Your task to perform on an android device: delete browsing data in the chrome app Image 0: 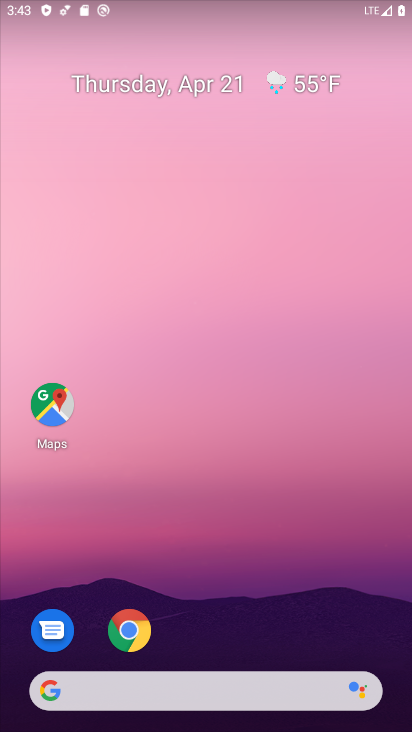
Step 0: click (128, 625)
Your task to perform on an android device: delete browsing data in the chrome app Image 1: 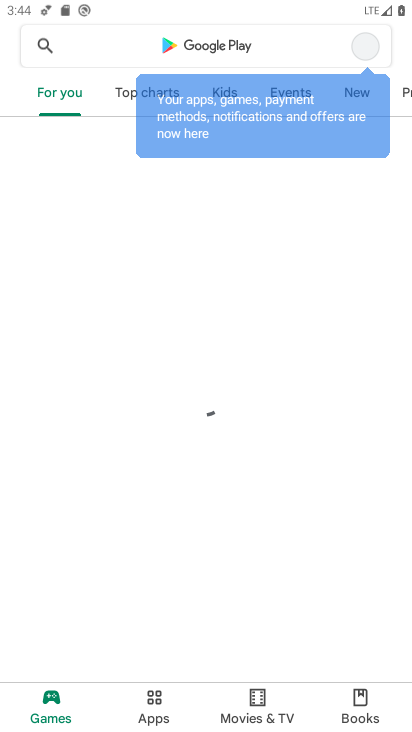
Step 1: press back button
Your task to perform on an android device: delete browsing data in the chrome app Image 2: 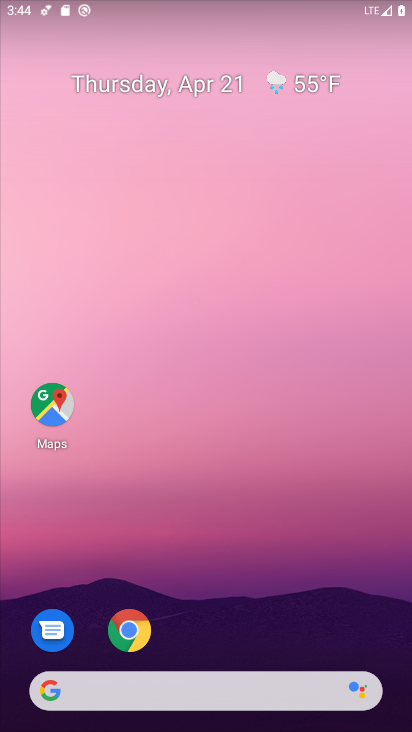
Step 2: click (134, 617)
Your task to perform on an android device: delete browsing data in the chrome app Image 3: 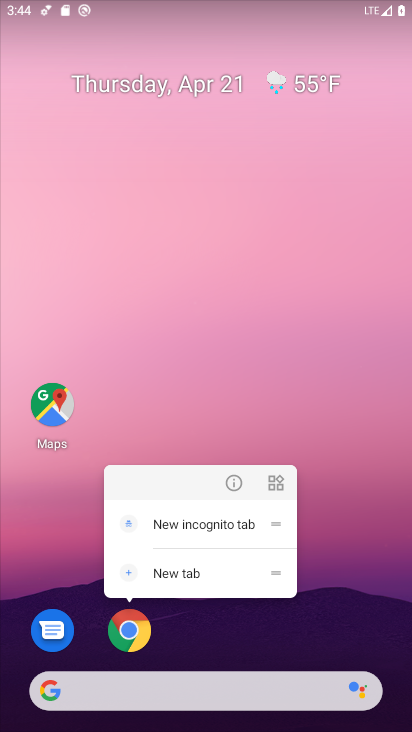
Step 3: click (134, 625)
Your task to perform on an android device: delete browsing data in the chrome app Image 4: 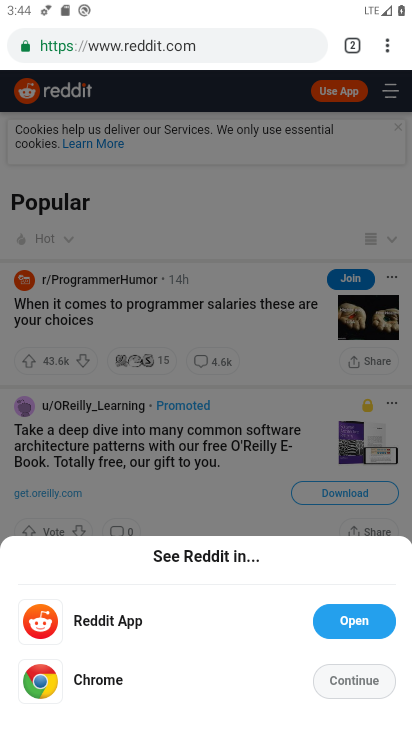
Step 4: drag from (385, 39) to (247, 324)
Your task to perform on an android device: delete browsing data in the chrome app Image 5: 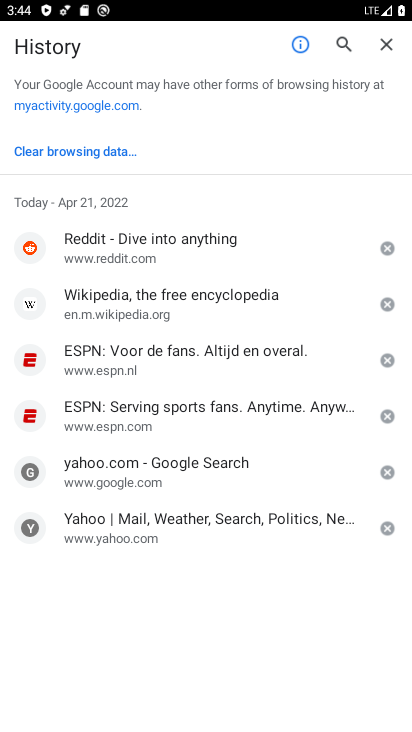
Step 5: click (66, 152)
Your task to perform on an android device: delete browsing data in the chrome app Image 6: 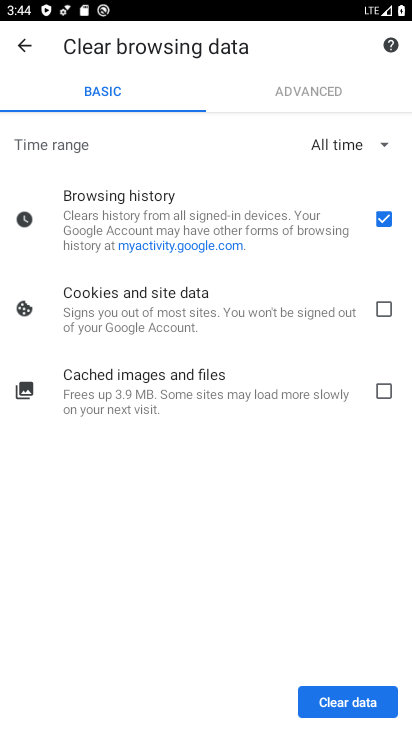
Step 6: click (338, 699)
Your task to perform on an android device: delete browsing data in the chrome app Image 7: 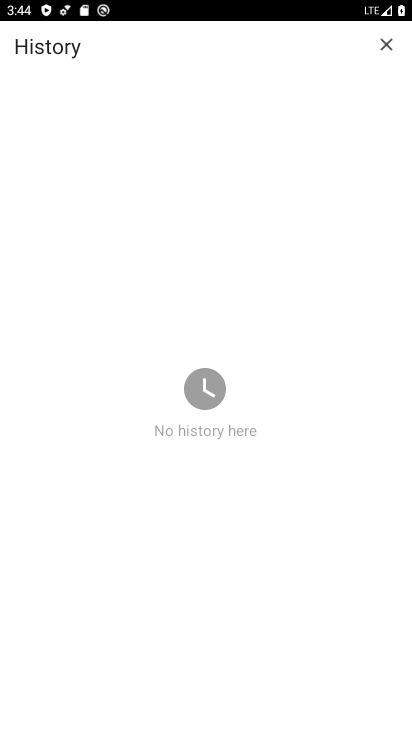
Step 7: task complete